Your task to perform on an android device: Open Maps and search for coffee Image 0: 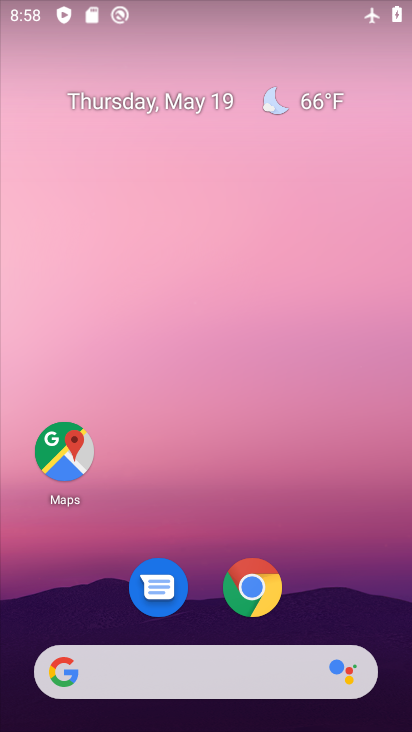
Step 0: drag from (193, 720) to (261, 222)
Your task to perform on an android device: Open Maps and search for coffee Image 1: 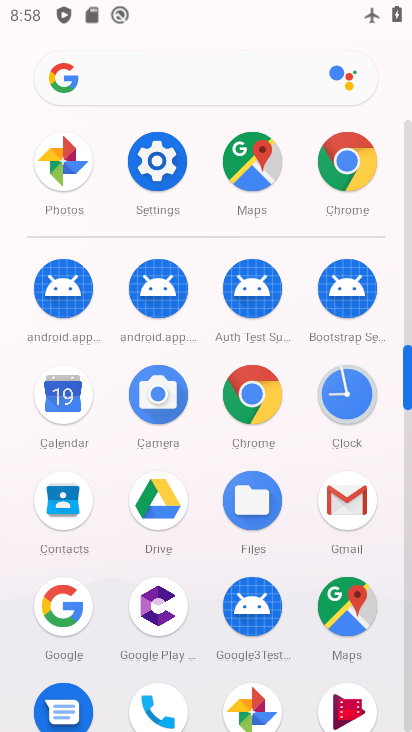
Step 1: click (262, 179)
Your task to perform on an android device: Open Maps and search for coffee Image 2: 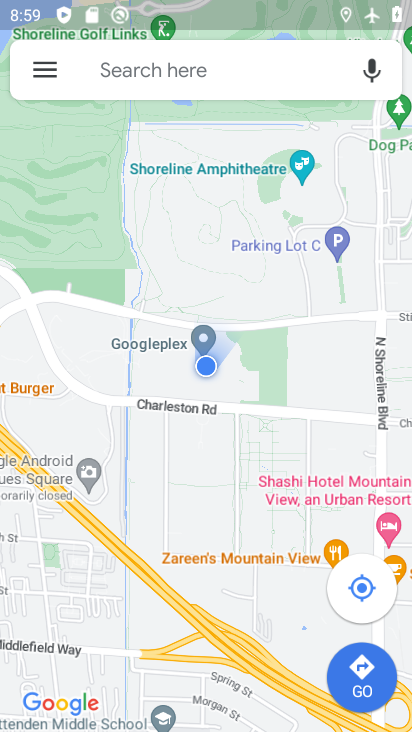
Step 2: click (33, 77)
Your task to perform on an android device: Open Maps and search for coffee Image 3: 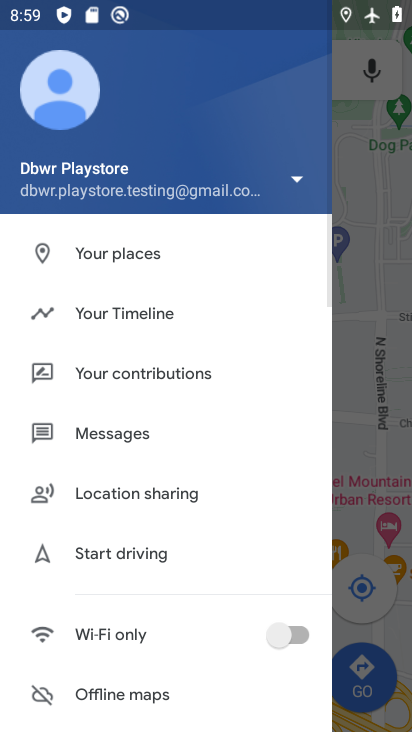
Step 3: click (365, 253)
Your task to perform on an android device: Open Maps and search for coffee Image 4: 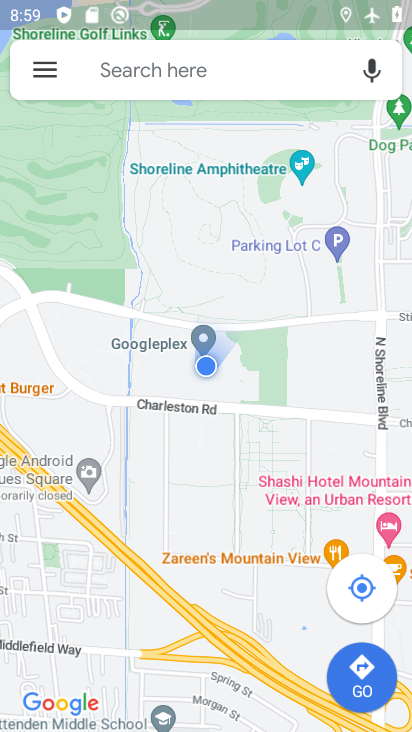
Step 4: click (179, 73)
Your task to perform on an android device: Open Maps and search for coffee Image 5: 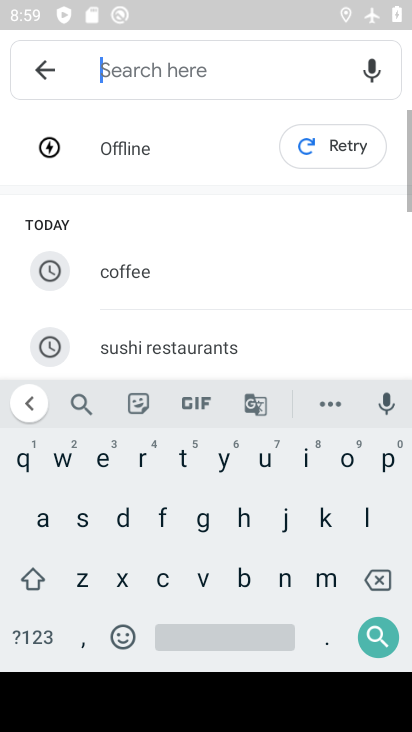
Step 5: click (134, 274)
Your task to perform on an android device: Open Maps and search for coffee Image 6: 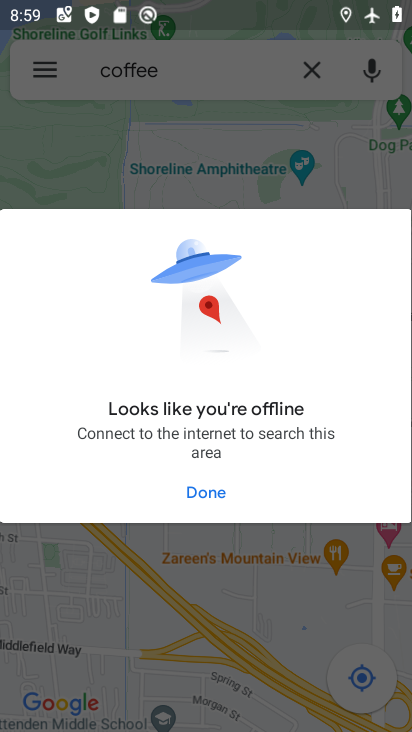
Step 6: click (230, 491)
Your task to perform on an android device: Open Maps and search for coffee Image 7: 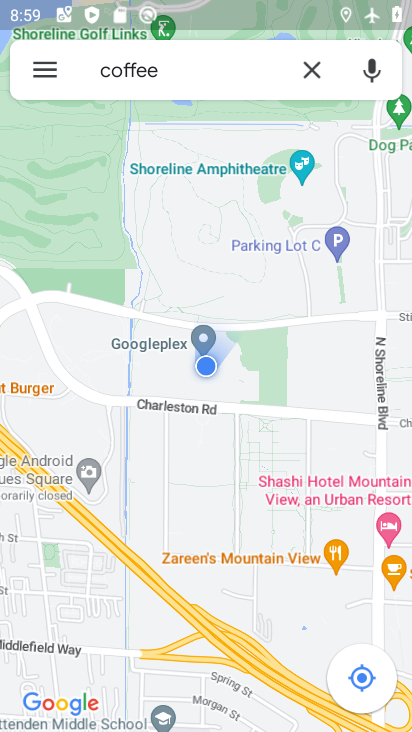
Step 7: task complete